Your task to perform on an android device: toggle wifi Image 0: 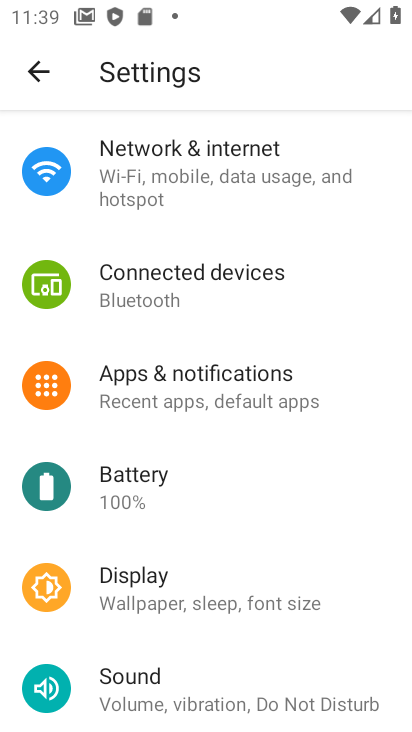
Step 0: press home button
Your task to perform on an android device: toggle wifi Image 1: 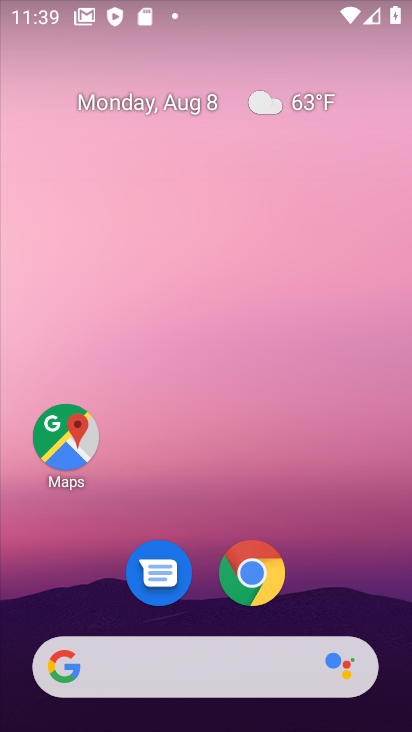
Step 1: drag from (112, 630) to (150, 226)
Your task to perform on an android device: toggle wifi Image 2: 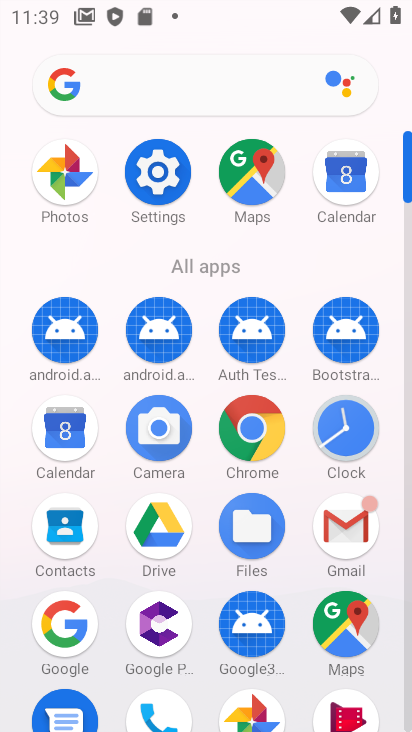
Step 2: click (157, 176)
Your task to perform on an android device: toggle wifi Image 3: 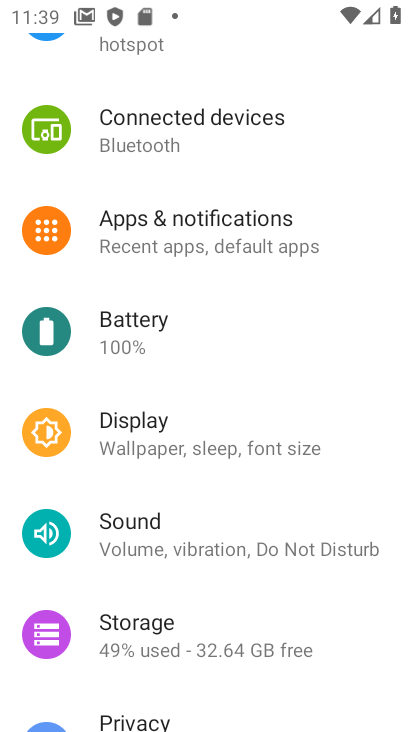
Step 3: drag from (152, 62) to (267, 466)
Your task to perform on an android device: toggle wifi Image 4: 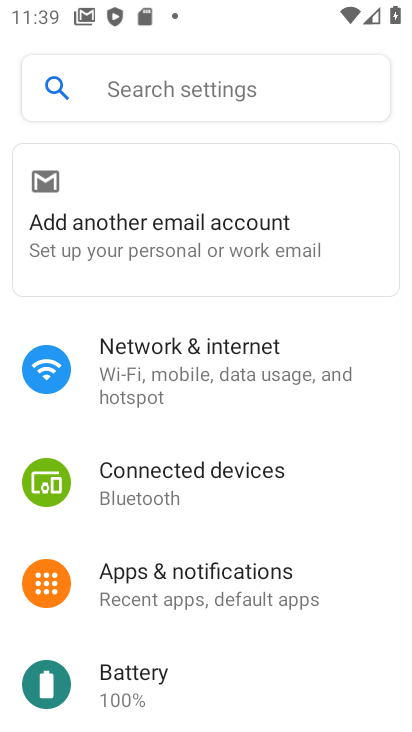
Step 4: click (218, 369)
Your task to perform on an android device: toggle wifi Image 5: 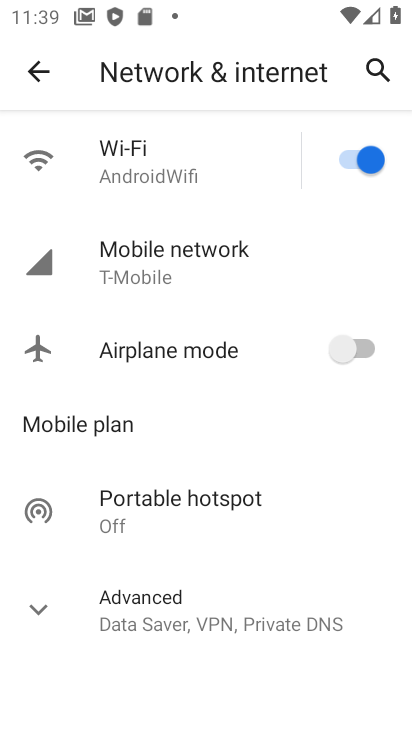
Step 5: click (339, 164)
Your task to perform on an android device: toggle wifi Image 6: 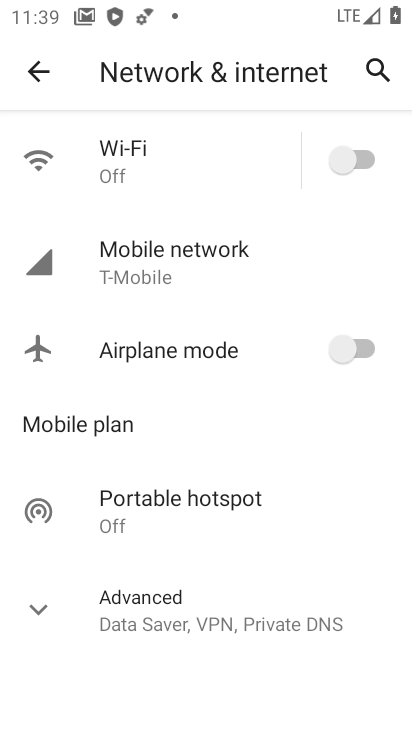
Step 6: task complete